Your task to perform on an android device: turn on data saver in the chrome app Image 0: 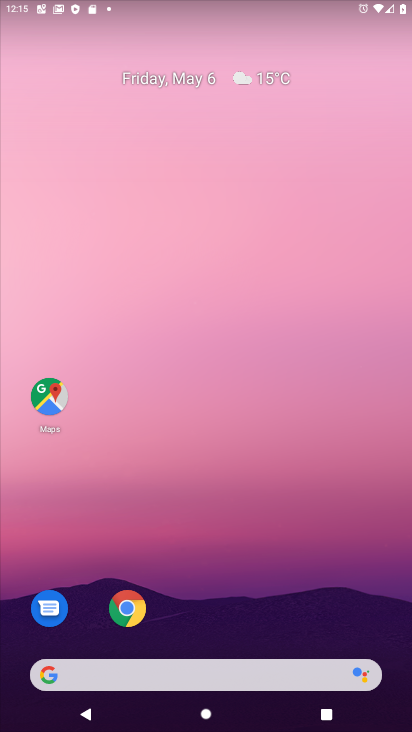
Step 0: click (129, 609)
Your task to perform on an android device: turn on data saver in the chrome app Image 1: 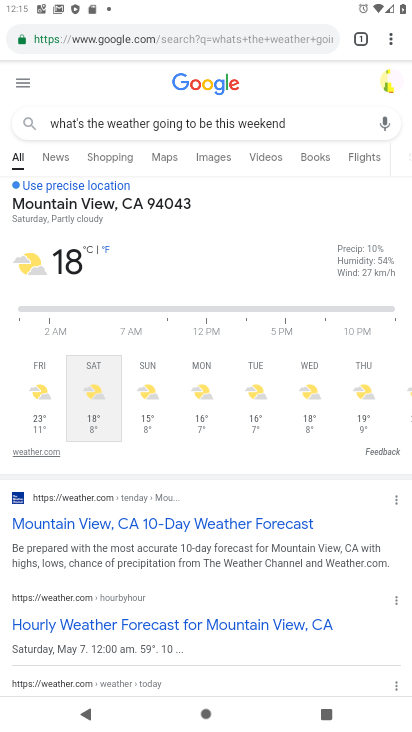
Step 1: click (392, 37)
Your task to perform on an android device: turn on data saver in the chrome app Image 2: 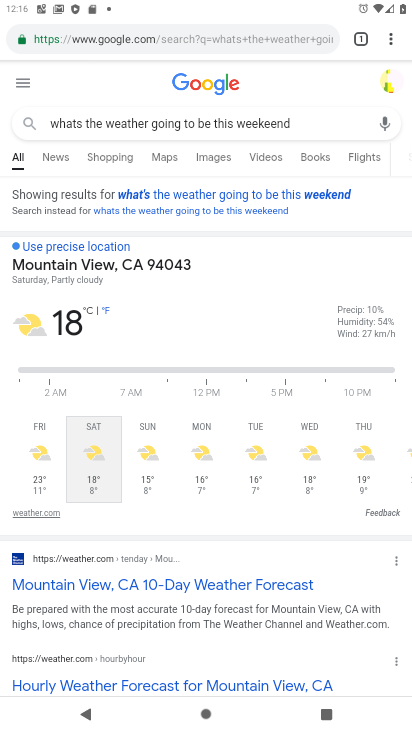
Step 2: drag from (392, 37) to (251, 430)
Your task to perform on an android device: turn on data saver in the chrome app Image 3: 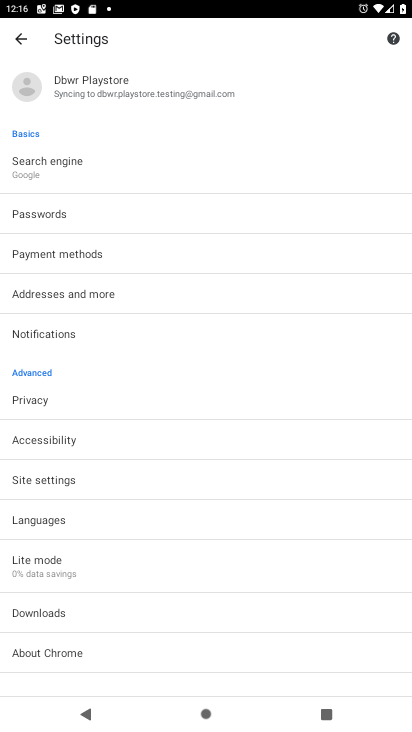
Step 3: click (74, 555)
Your task to perform on an android device: turn on data saver in the chrome app Image 4: 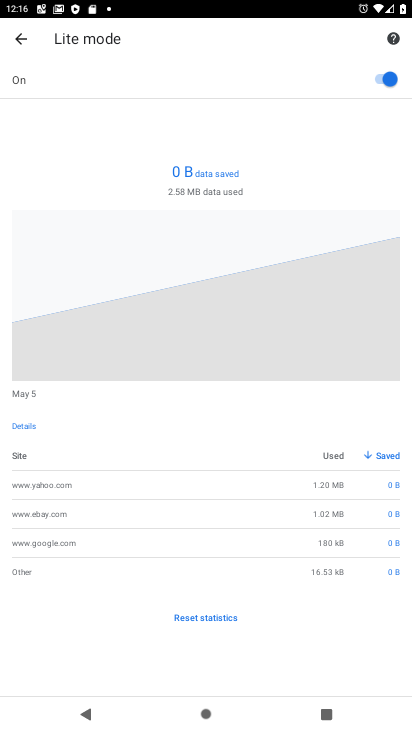
Step 4: task complete